Your task to perform on an android device: Open wifi settings Image 0: 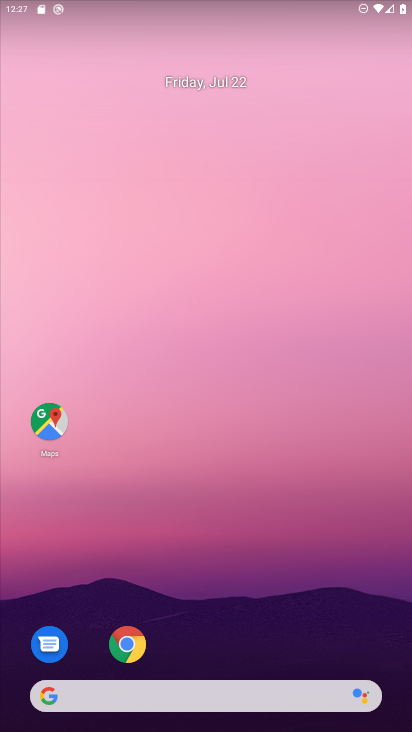
Step 0: drag from (282, 8) to (260, 440)
Your task to perform on an android device: Open wifi settings Image 1: 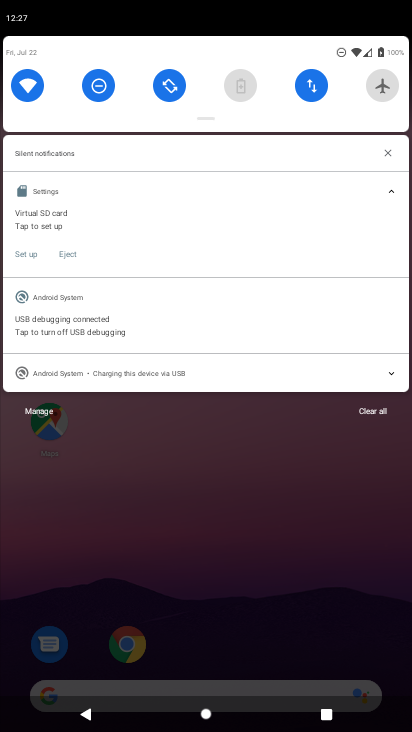
Step 1: click (28, 83)
Your task to perform on an android device: Open wifi settings Image 2: 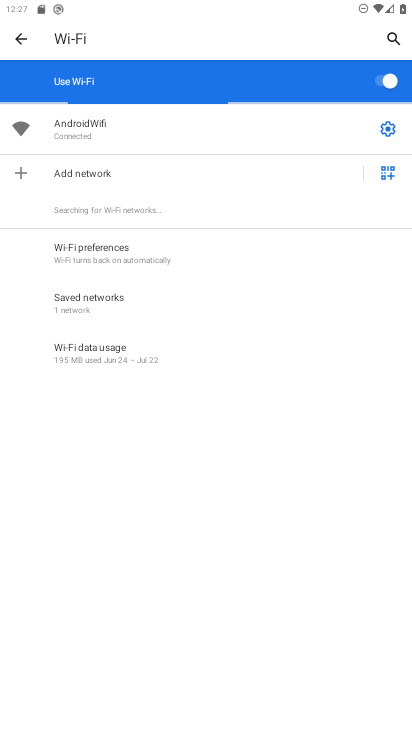
Step 2: task complete